Your task to perform on an android device: turn off location Image 0: 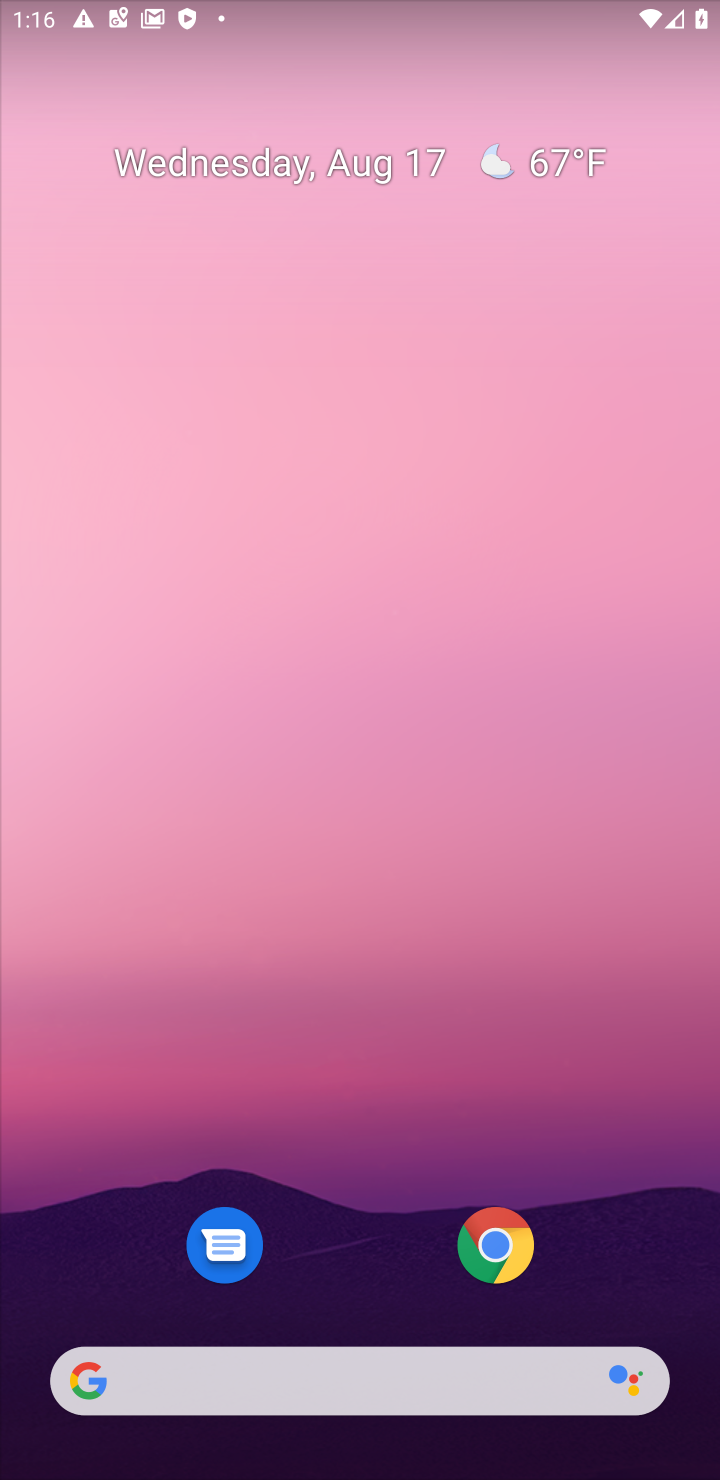
Step 0: drag from (371, 843) to (359, 160)
Your task to perform on an android device: turn off location Image 1: 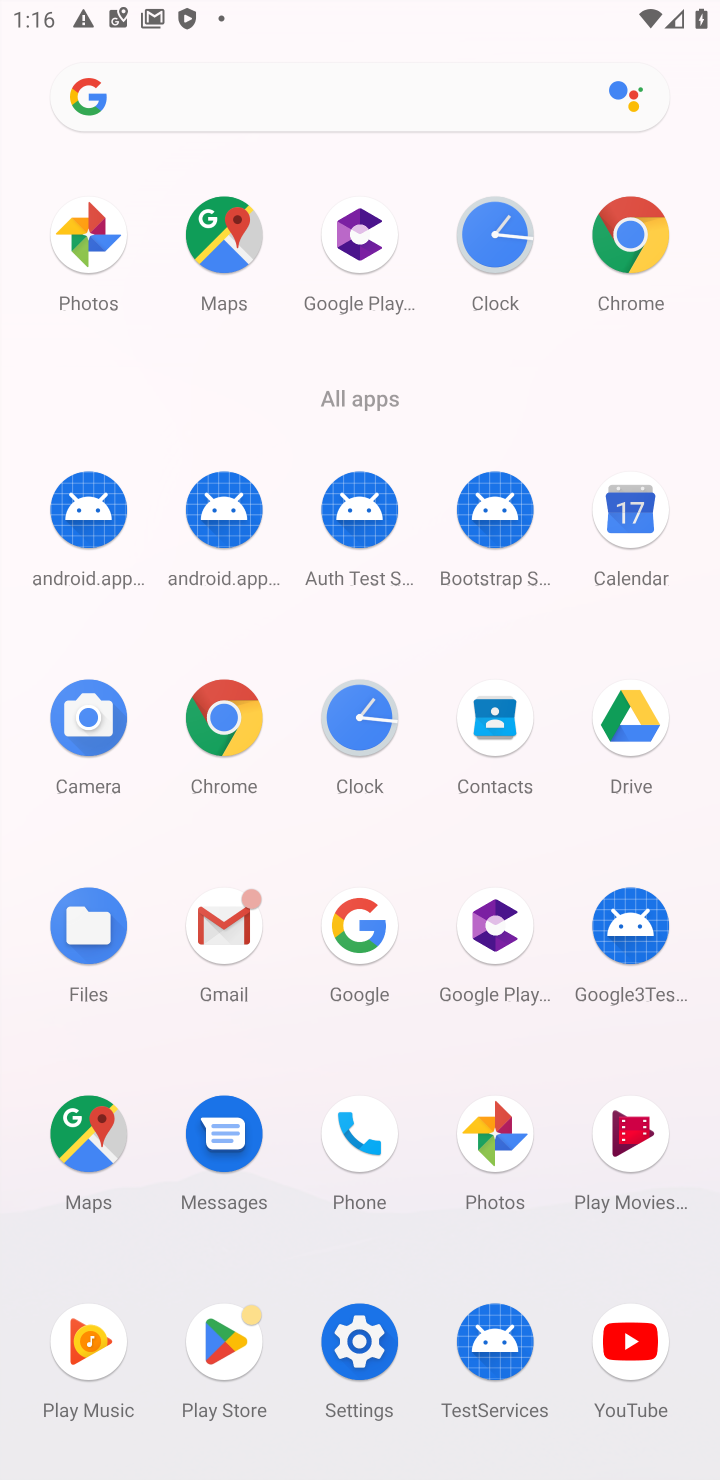
Step 1: click (353, 1324)
Your task to perform on an android device: turn off location Image 2: 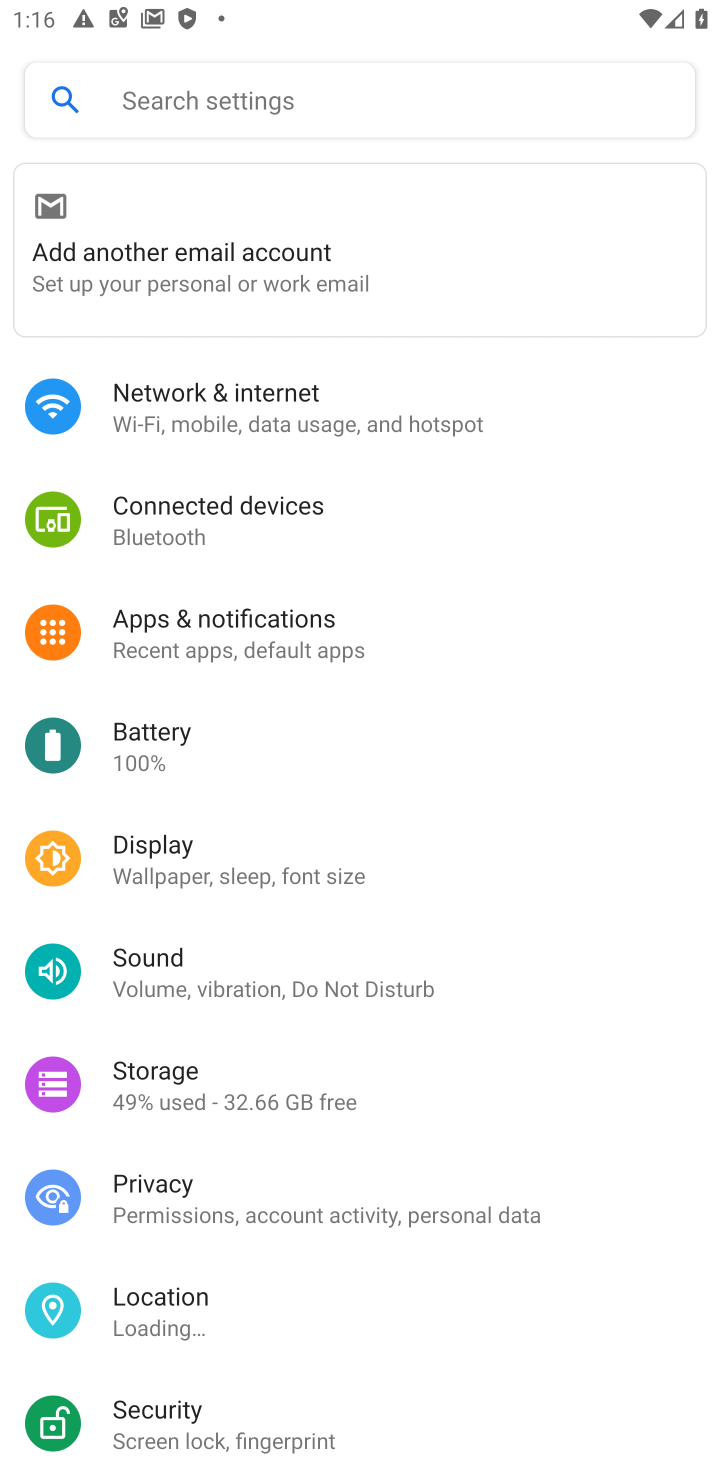
Step 2: click (152, 1296)
Your task to perform on an android device: turn off location Image 3: 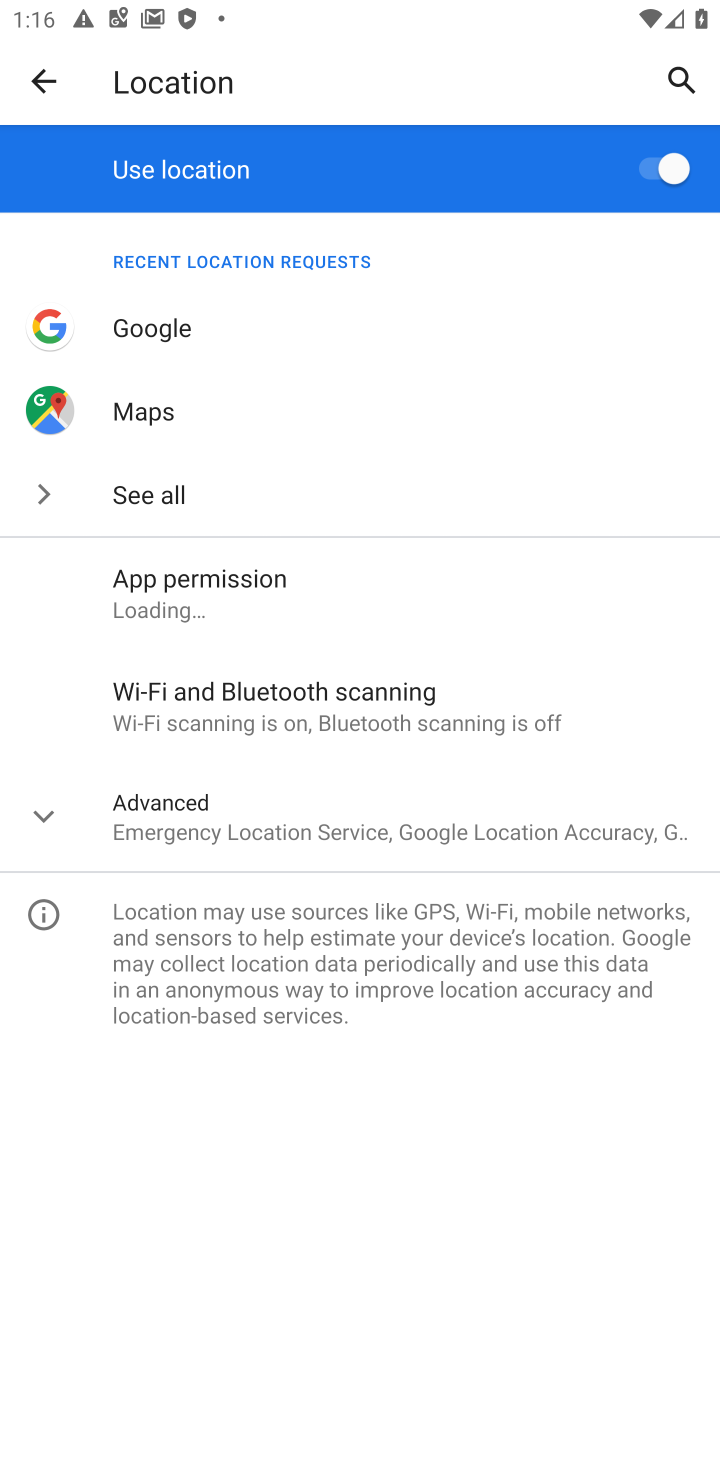
Step 3: click (637, 170)
Your task to perform on an android device: turn off location Image 4: 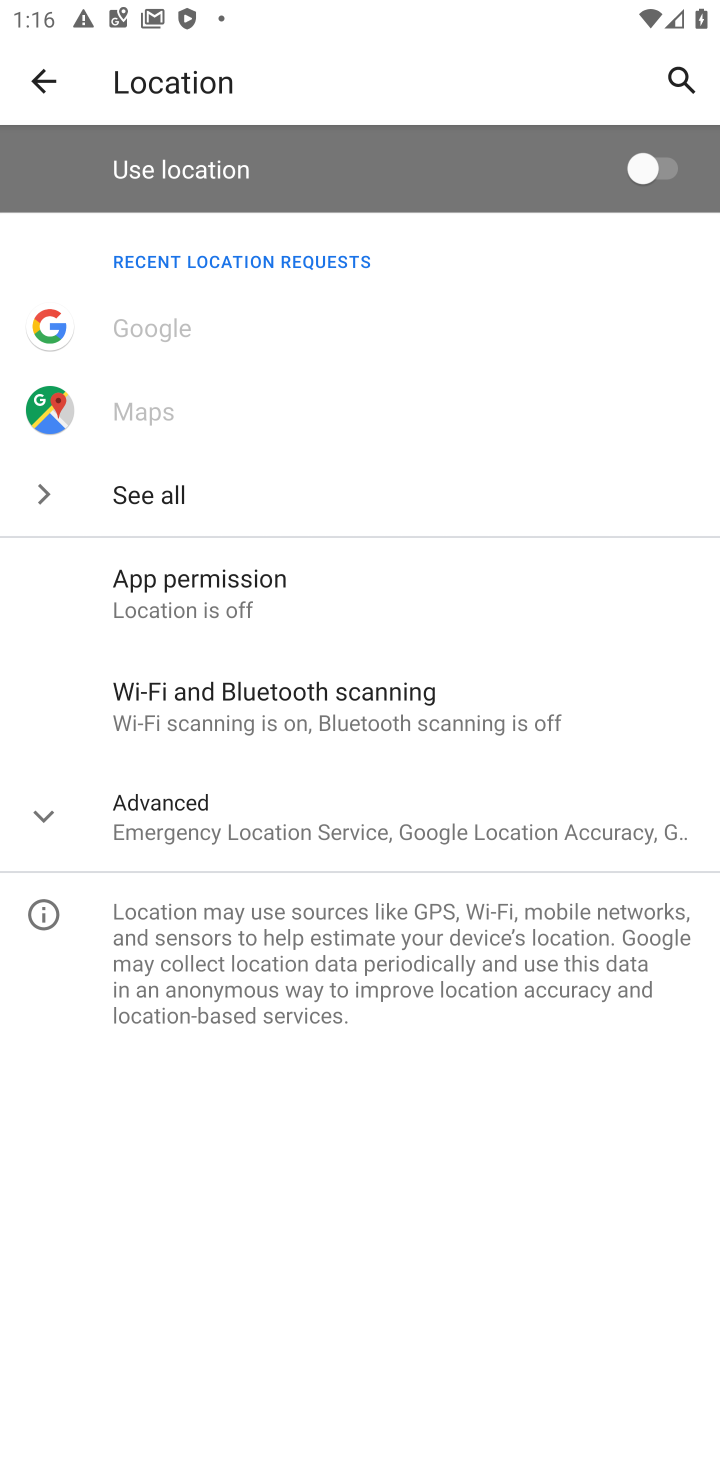
Step 4: task complete